Your task to perform on an android device: What is the news today? Image 0: 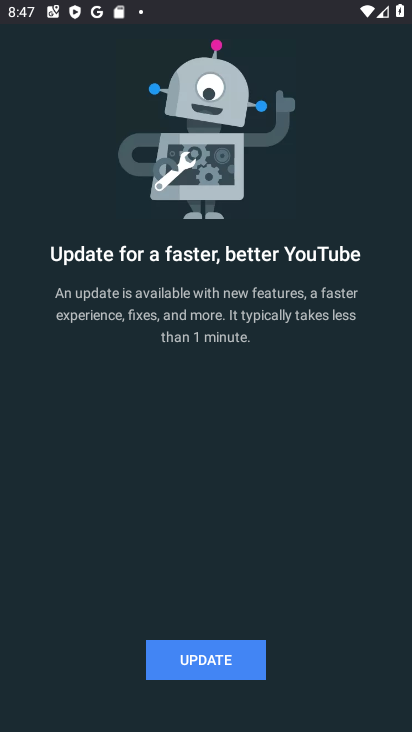
Step 0: press home button
Your task to perform on an android device: What is the news today? Image 1: 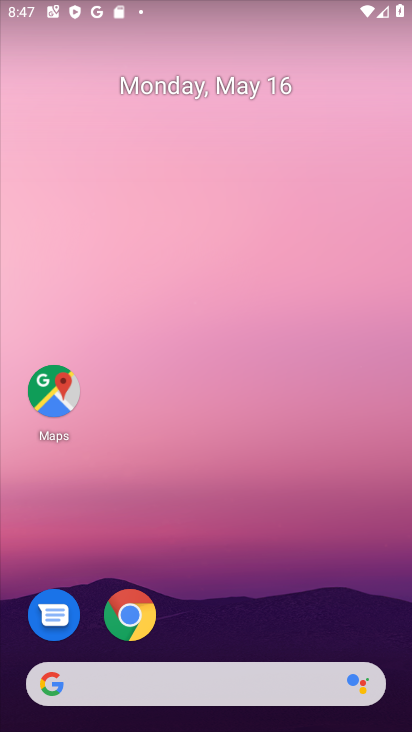
Step 1: drag from (41, 207) to (412, 174)
Your task to perform on an android device: What is the news today? Image 2: 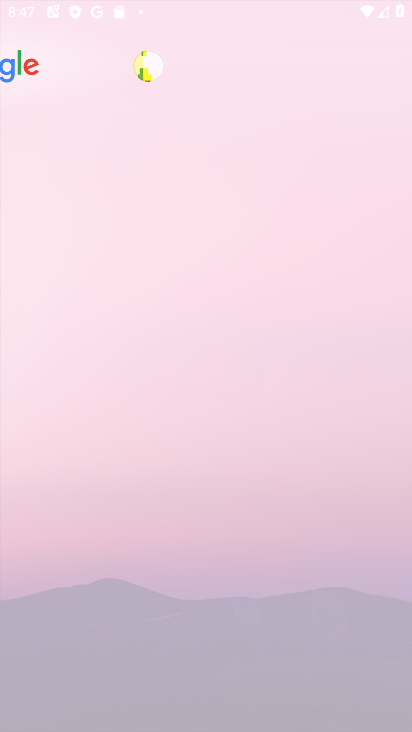
Step 2: press home button
Your task to perform on an android device: What is the news today? Image 3: 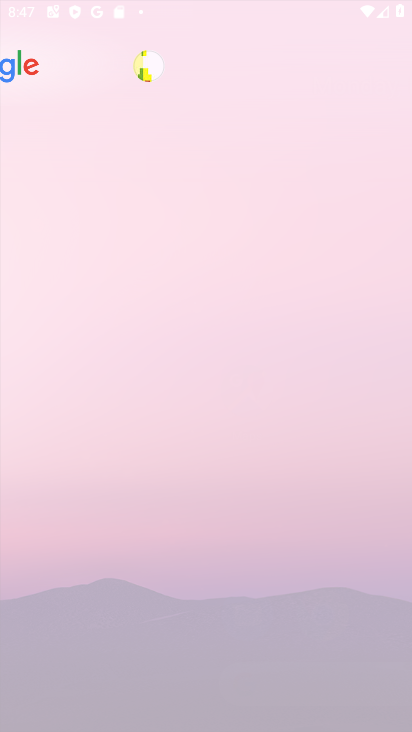
Step 3: drag from (412, 174) to (411, 367)
Your task to perform on an android device: What is the news today? Image 4: 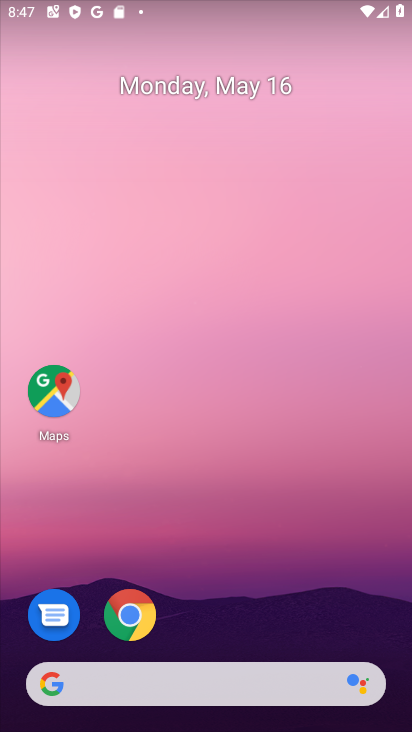
Step 4: click (102, 678)
Your task to perform on an android device: What is the news today? Image 5: 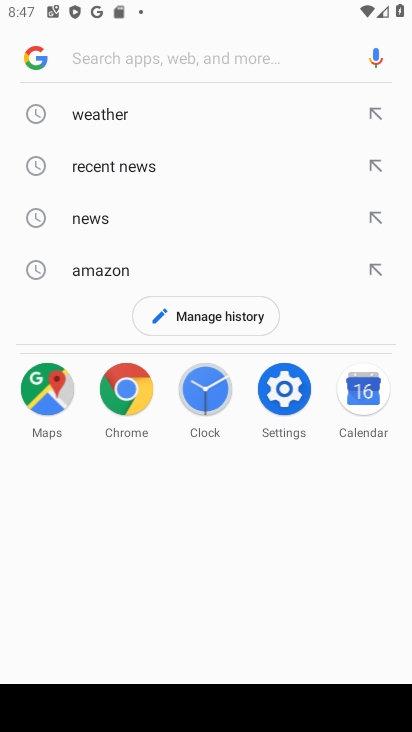
Step 5: click (109, 212)
Your task to perform on an android device: What is the news today? Image 6: 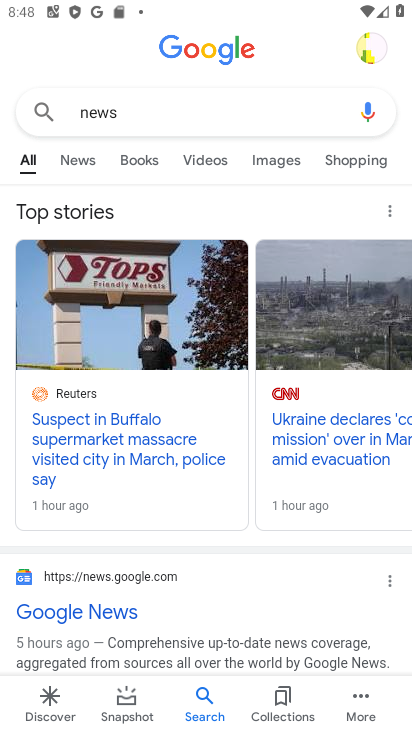
Step 6: task complete